Your task to perform on an android device: see sites visited before in the chrome app Image 0: 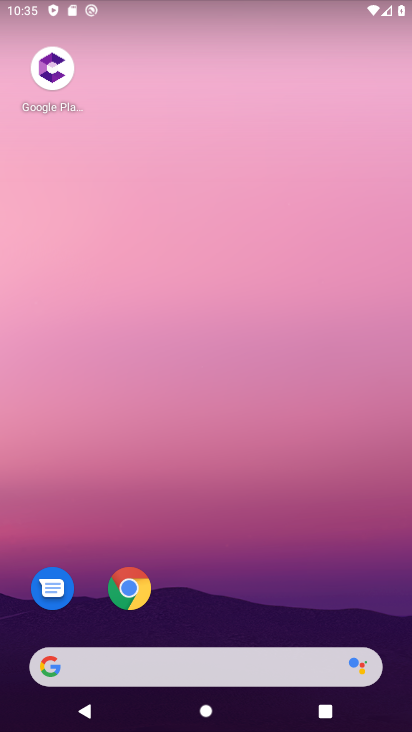
Step 0: click (394, 642)
Your task to perform on an android device: see sites visited before in the chrome app Image 1: 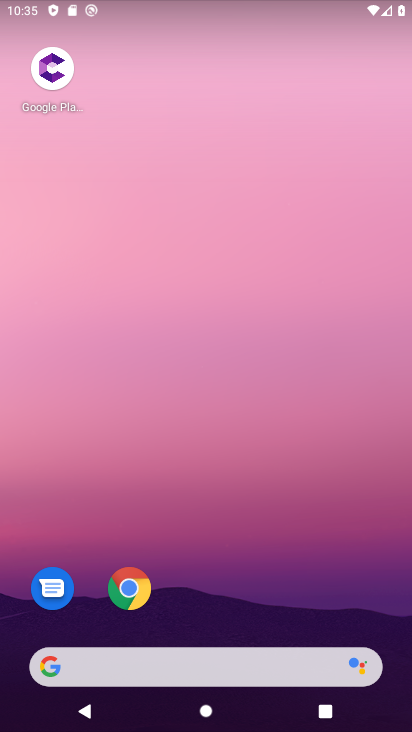
Step 1: click (131, 588)
Your task to perform on an android device: see sites visited before in the chrome app Image 2: 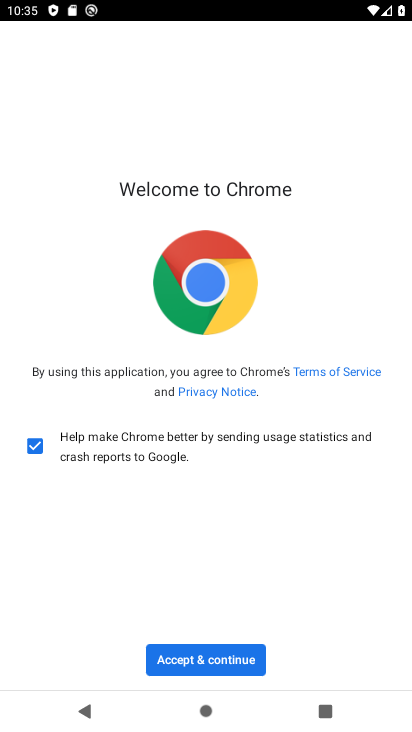
Step 2: click (199, 658)
Your task to perform on an android device: see sites visited before in the chrome app Image 3: 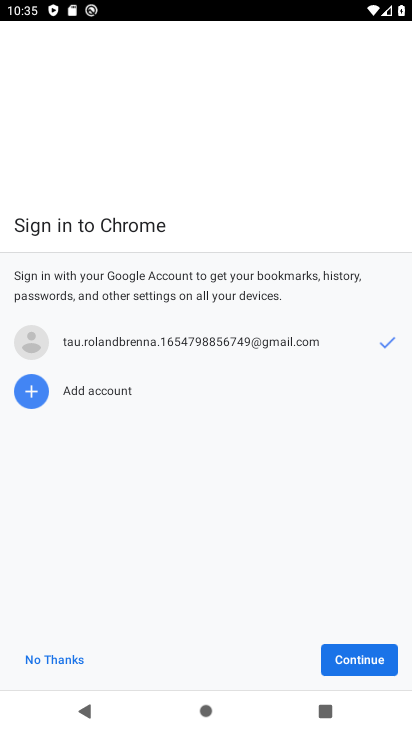
Step 3: click (357, 662)
Your task to perform on an android device: see sites visited before in the chrome app Image 4: 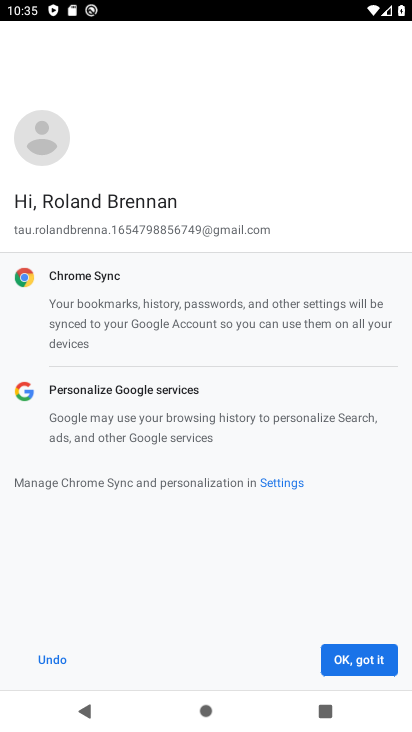
Step 4: click (357, 662)
Your task to perform on an android device: see sites visited before in the chrome app Image 5: 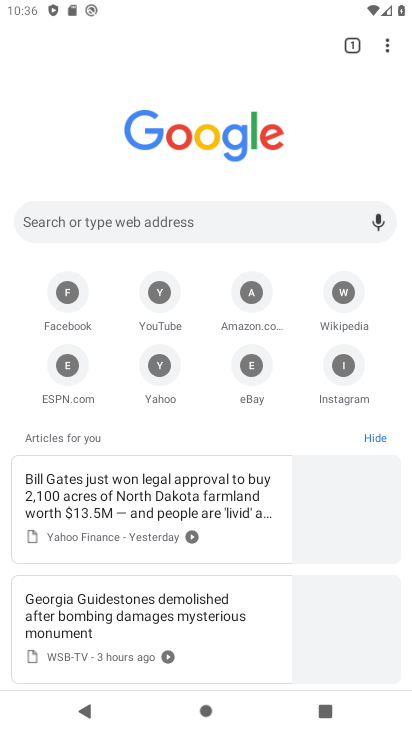
Step 5: click (384, 49)
Your task to perform on an android device: see sites visited before in the chrome app Image 6: 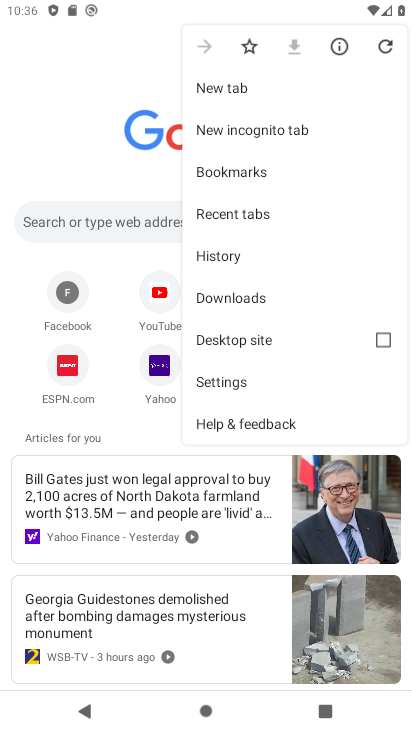
Step 6: click (229, 252)
Your task to perform on an android device: see sites visited before in the chrome app Image 7: 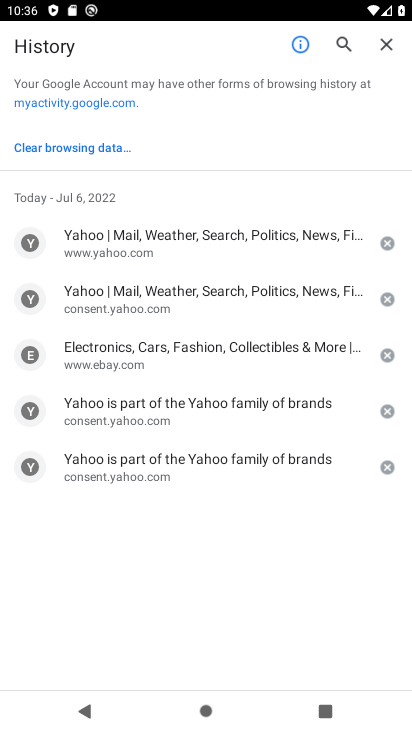
Step 7: task complete